Your task to perform on an android device: Go to eBay Image 0: 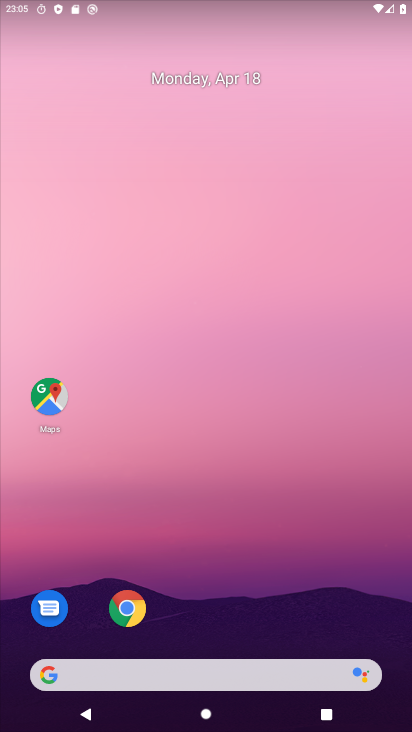
Step 0: drag from (228, 573) to (244, 153)
Your task to perform on an android device: Go to eBay Image 1: 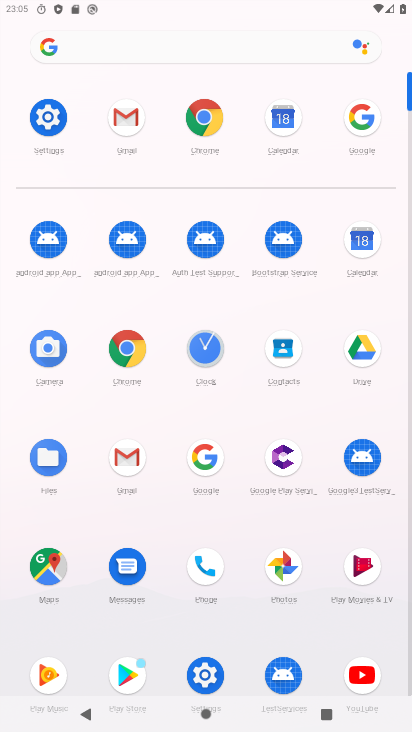
Step 1: click (206, 457)
Your task to perform on an android device: Go to eBay Image 2: 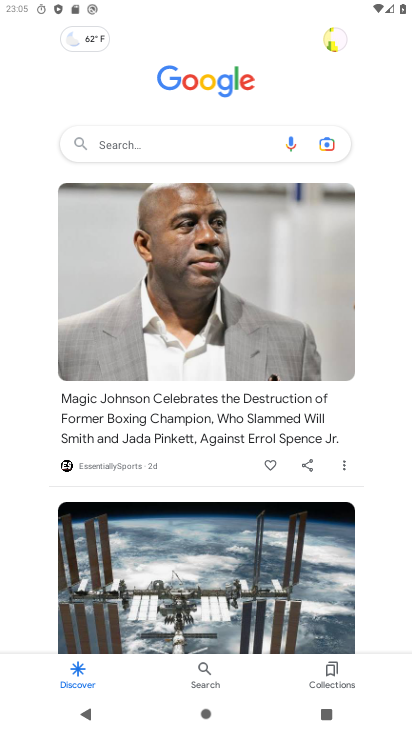
Step 2: click (134, 142)
Your task to perform on an android device: Go to eBay Image 3: 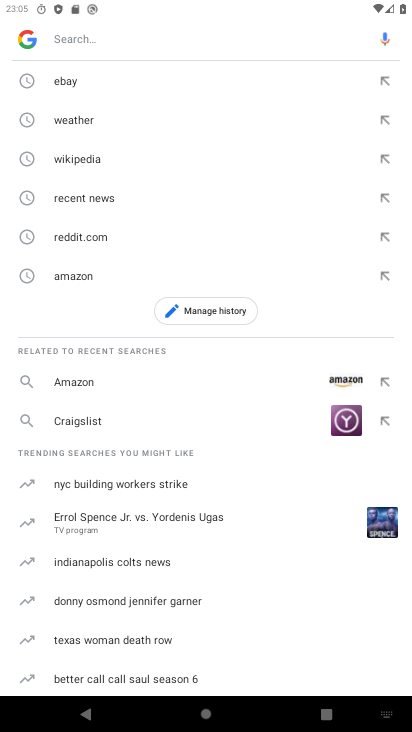
Step 3: click (77, 82)
Your task to perform on an android device: Go to eBay Image 4: 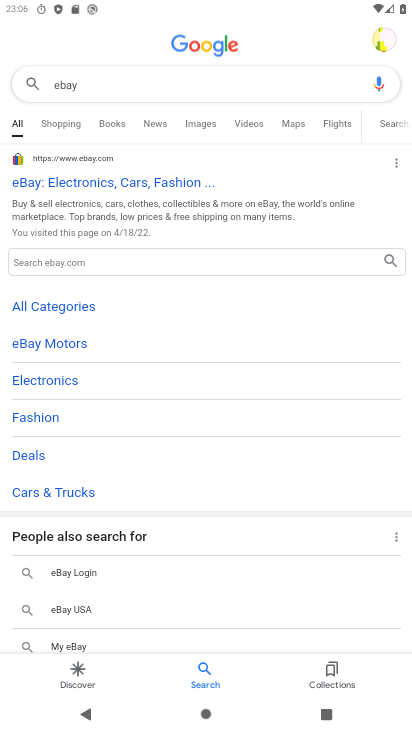
Step 4: task complete